Your task to perform on an android device: Open Google Maps Image 0: 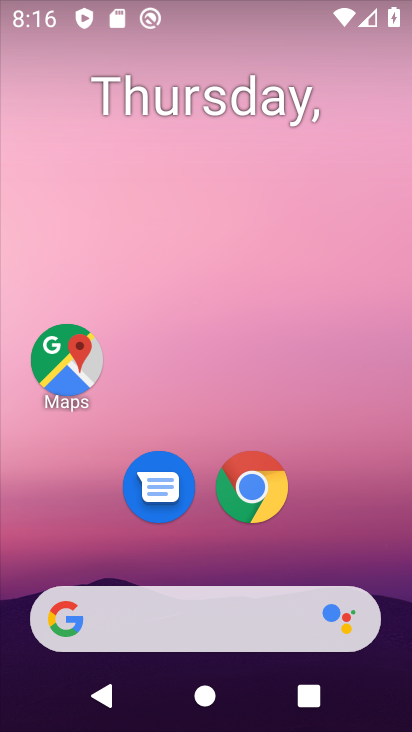
Step 0: drag from (289, 623) to (254, 179)
Your task to perform on an android device: Open Google Maps Image 1: 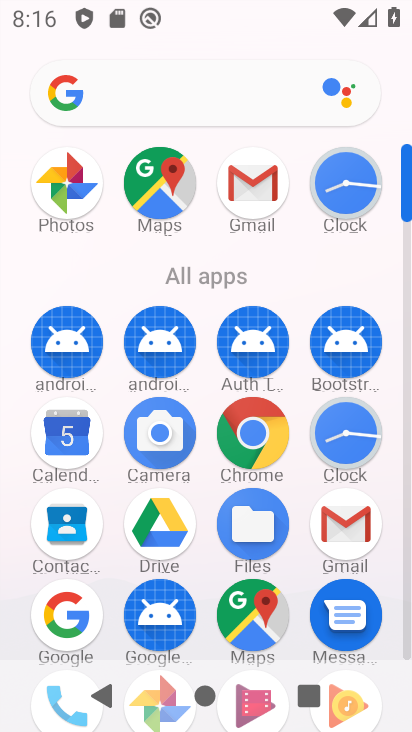
Step 1: click (176, 165)
Your task to perform on an android device: Open Google Maps Image 2: 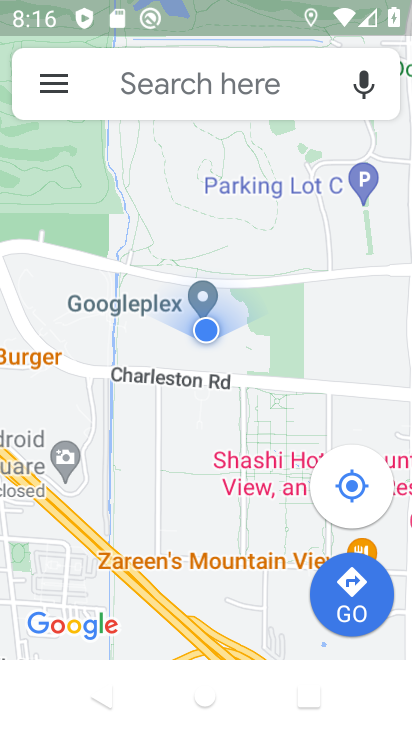
Step 2: task complete